Your task to perform on an android device: open app "ColorNote Notepad Notes" (install if not already installed) and enter user name: "unbridled@gmail.com" and password: "regularly" Image 0: 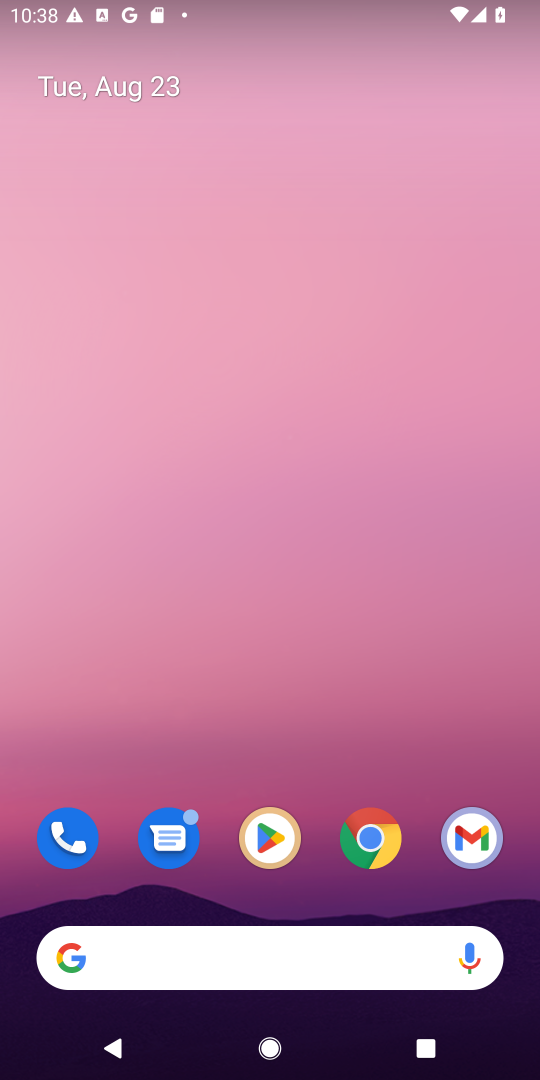
Step 0: click (260, 825)
Your task to perform on an android device: open app "ColorNote Notepad Notes" (install if not already installed) and enter user name: "unbridled@gmail.com" and password: "regularly" Image 1: 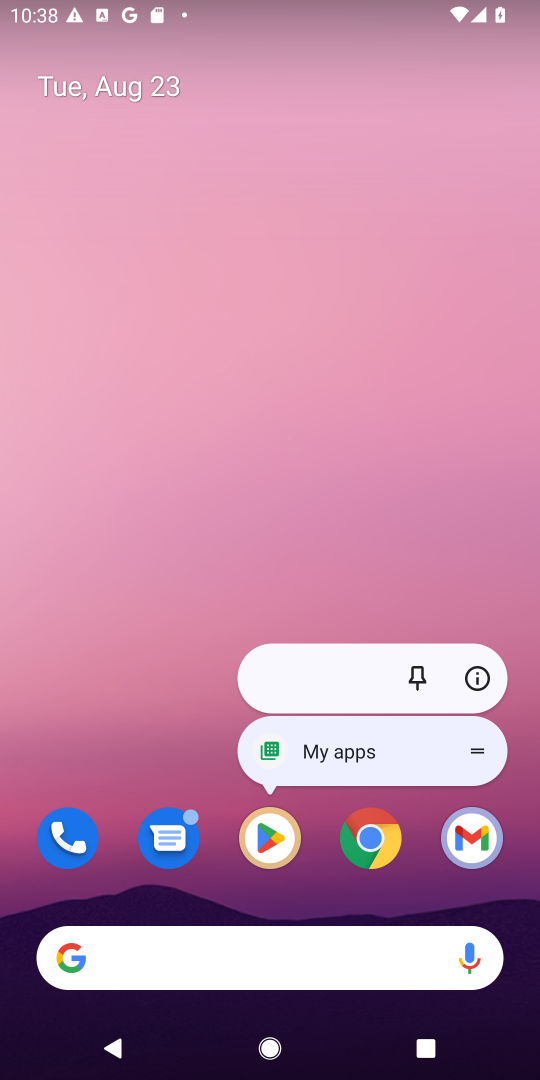
Step 1: click (265, 853)
Your task to perform on an android device: open app "ColorNote Notepad Notes" (install if not already installed) and enter user name: "unbridled@gmail.com" and password: "regularly" Image 2: 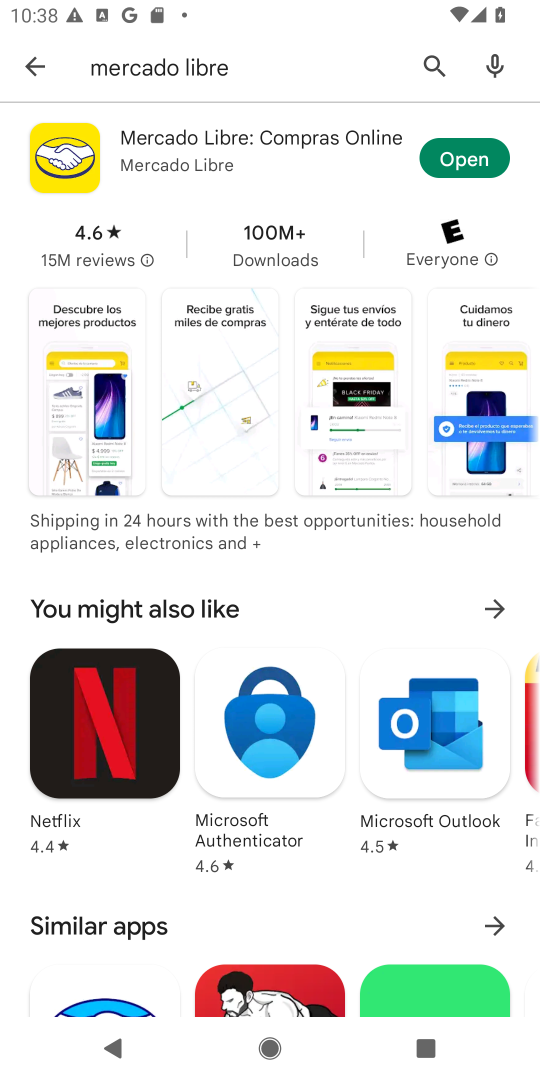
Step 2: click (433, 71)
Your task to perform on an android device: open app "ColorNote Notepad Notes" (install if not already installed) and enter user name: "unbridled@gmail.com" and password: "regularly" Image 3: 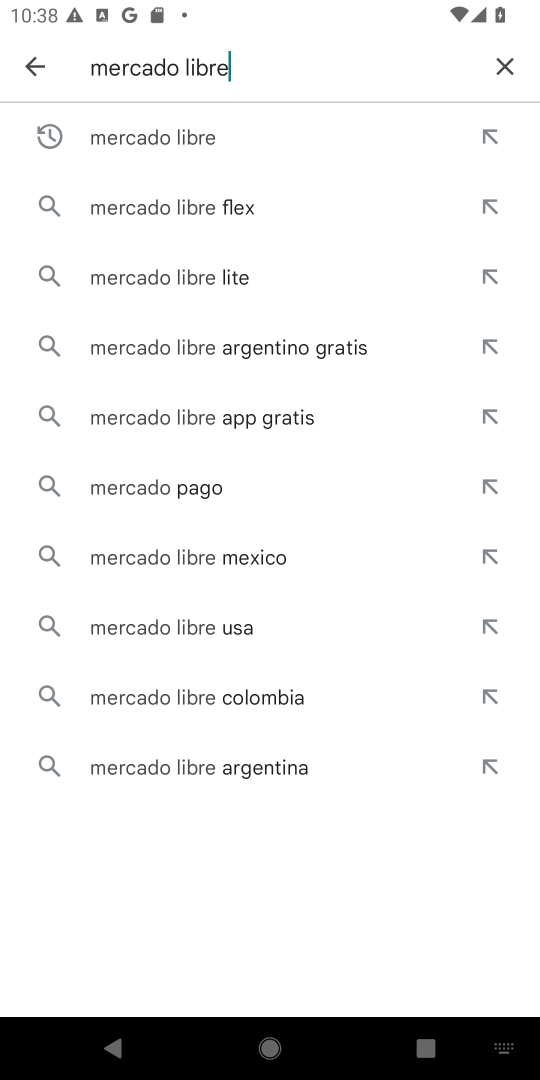
Step 3: click (489, 62)
Your task to perform on an android device: open app "ColorNote Notepad Notes" (install if not already installed) and enter user name: "unbridled@gmail.com" and password: "regularly" Image 4: 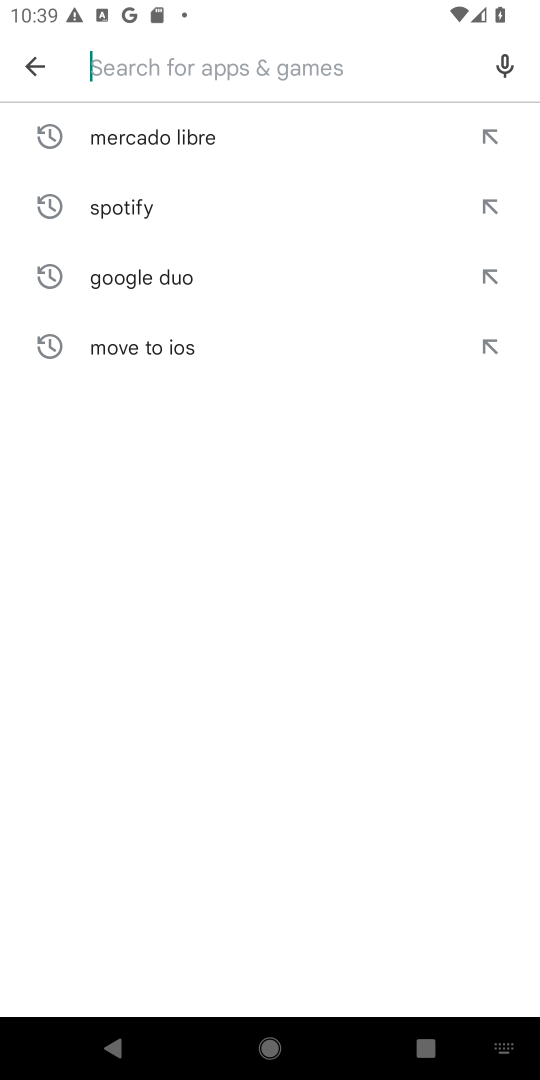
Step 4: type "ColorNote Notepad Notes"
Your task to perform on an android device: open app "ColorNote Notepad Notes" (install if not already installed) and enter user name: "unbridled@gmail.com" and password: "regularly" Image 5: 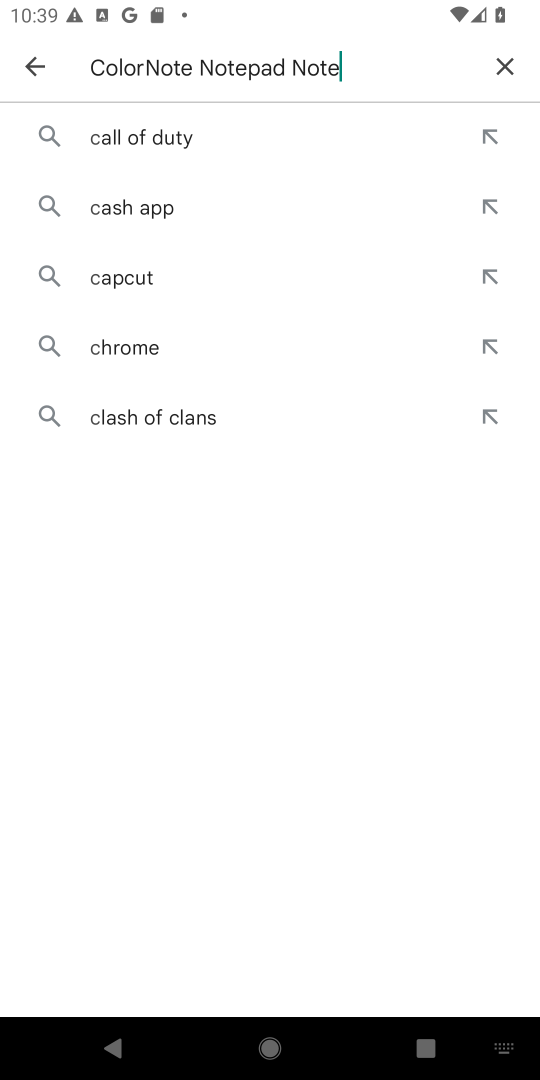
Step 5: type ""
Your task to perform on an android device: open app "ColorNote Notepad Notes" (install if not already installed) and enter user name: "unbridled@gmail.com" and password: "regularly" Image 6: 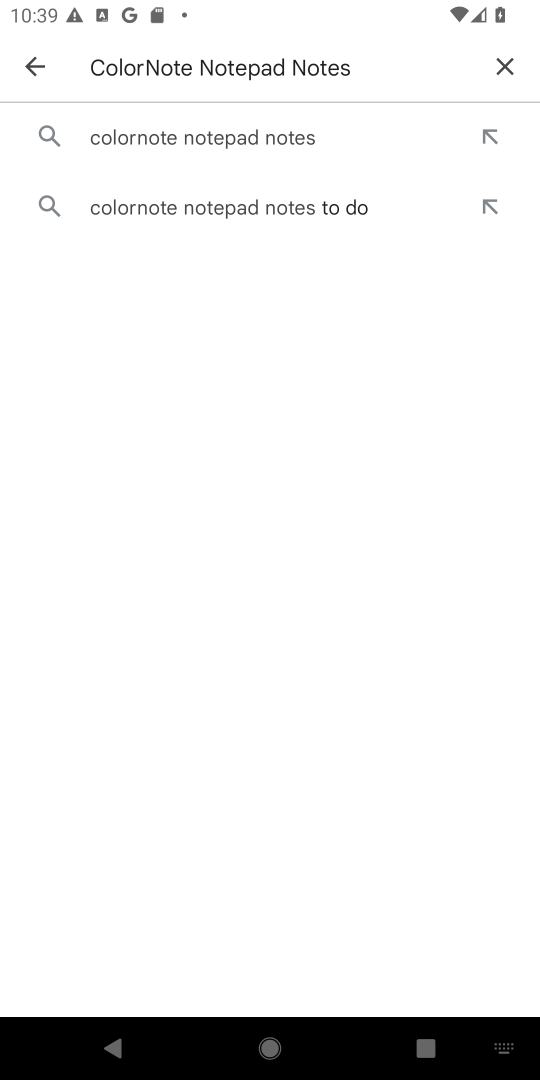
Step 6: click (341, 133)
Your task to perform on an android device: open app "ColorNote Notepad Notes" (install if not already installed) and enter user name: "unbridled@gmail.com" and password: "regularly" Image 7: 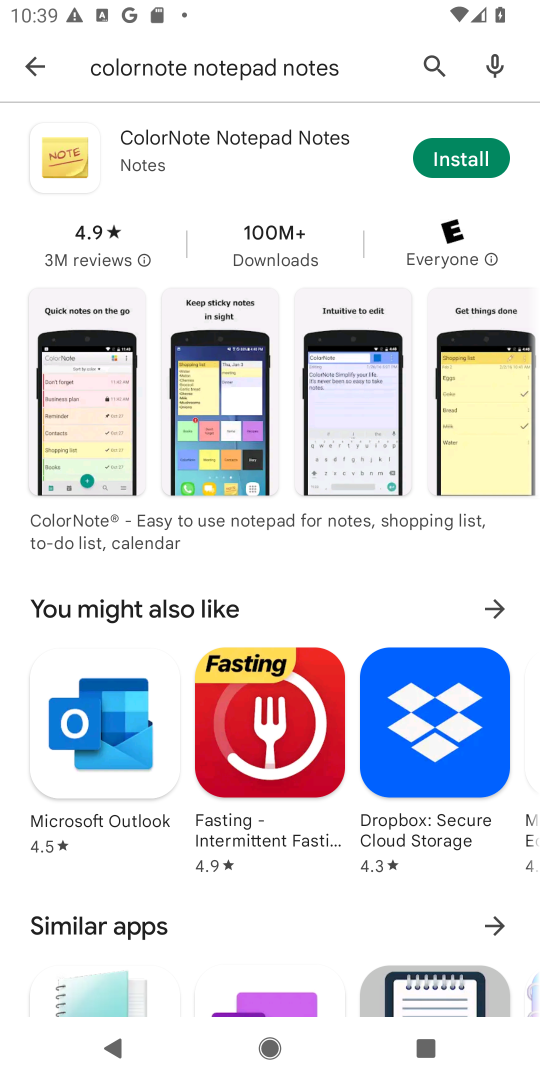
Step 7: click (443, 165)
Your task to perform on an android device: open app "ColorNote Notepad Notes" (install if not already installed) and enter user name: "unbridled@gmail.com" and password: "regularly" Image 8: 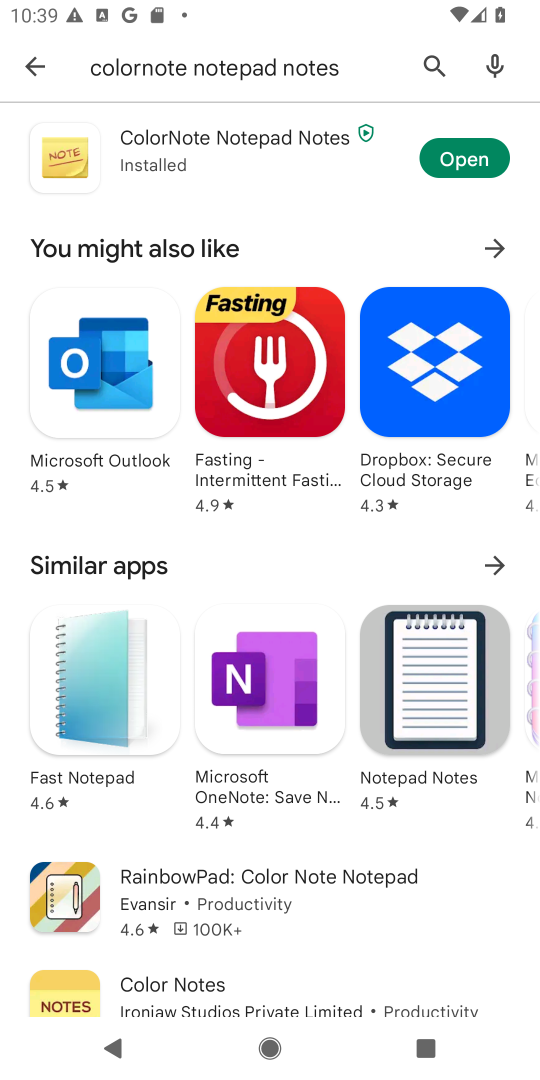
Step 8: click (443, 165)
Your task to perform on an android device: open app "ColorNote Notepad Notes" (install if not already installed) and enter user name: "unbridled@gmail.com" and password: "regularly" Image 9: 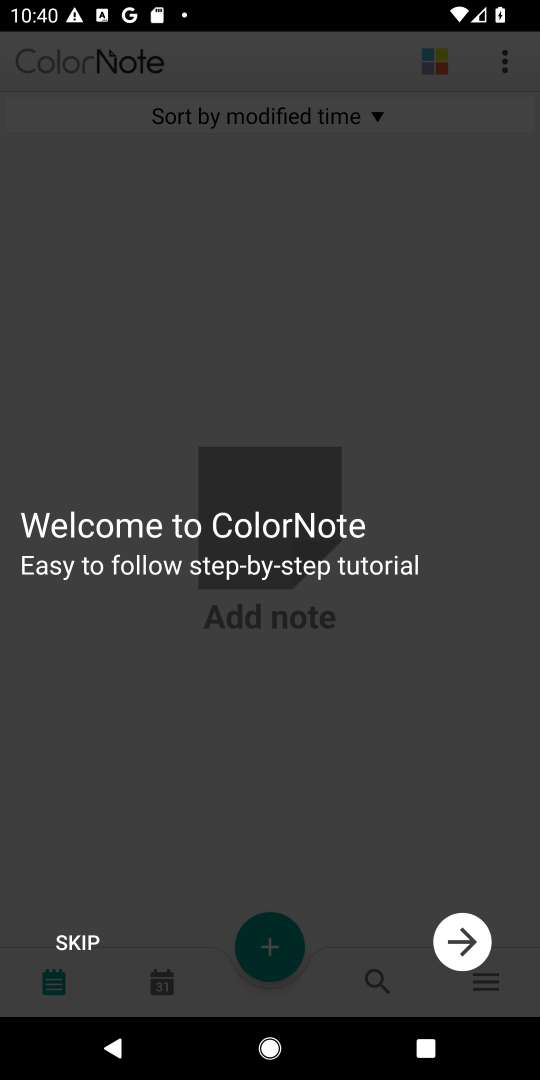
Step 9: task complete